Your task to perform on an android device: delete the emails in spam in the gmail app Image 0: 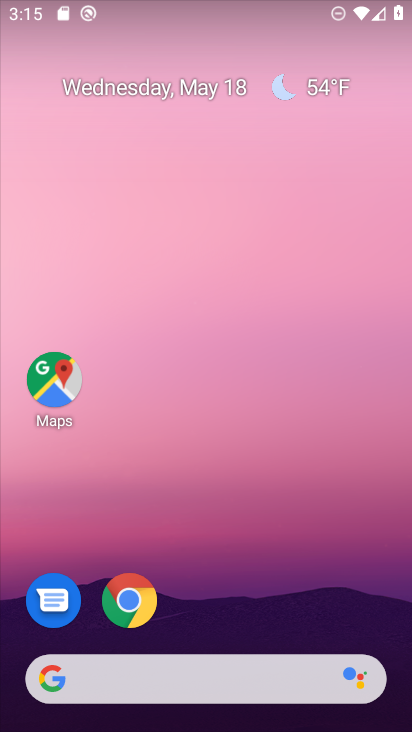
Step 0: drag from (200, 622) to (305, 29)
Your task to perform on an android device: delete the emails in spam in the gmail app Image 1: 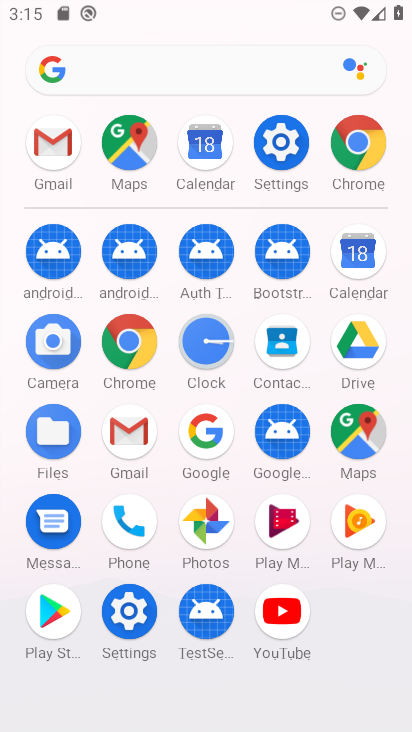
Step 1: click (140, 430)
Your task to perform on an android device: delete the emails in spam in the gmail app Image 2: 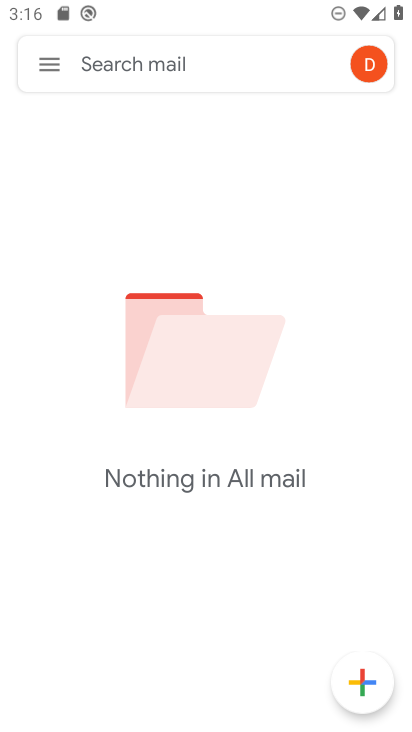
Step 2: click (58, 64)
Your task to perform on an android device: delete the emails in spam in the gmail app Image 3: 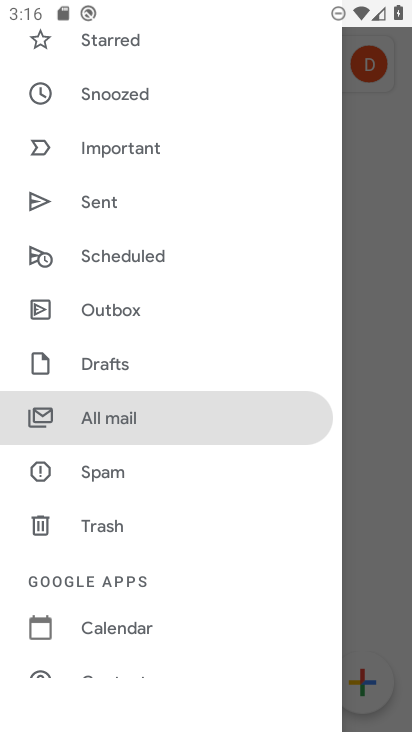
Step 3: click (96, 471)
Your task to perform on an android device: delete the emails in spam in the gmail app Image 4: 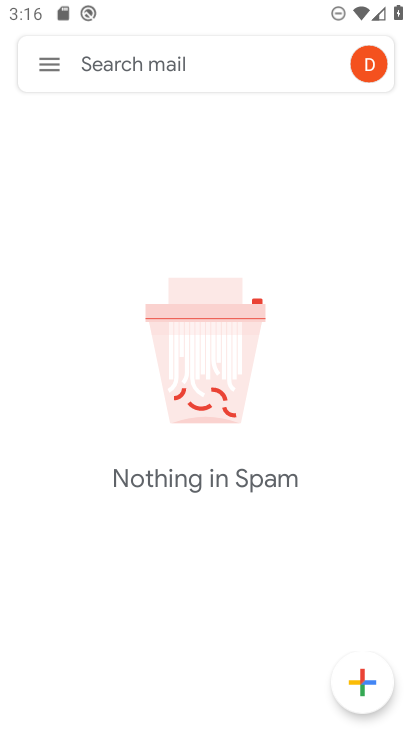
Step 4: task complete